Your task to perform on an android device: delete a single message in the gmail app Image 0: 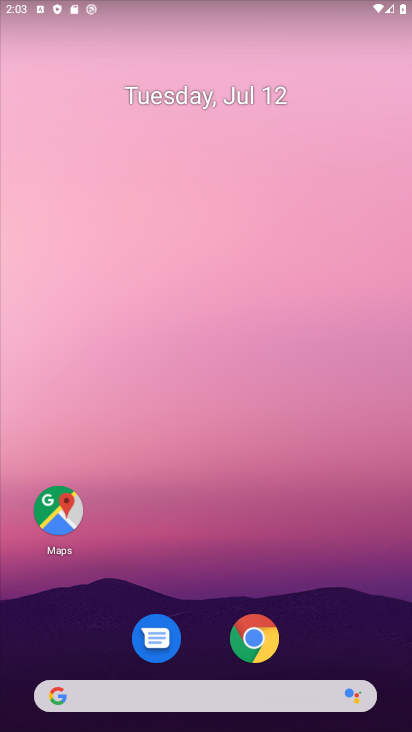
Step 0: drag from (109, 527) to (211, 58)
Your task to perform on an android device: delete a single message in the gmail app Image 1: 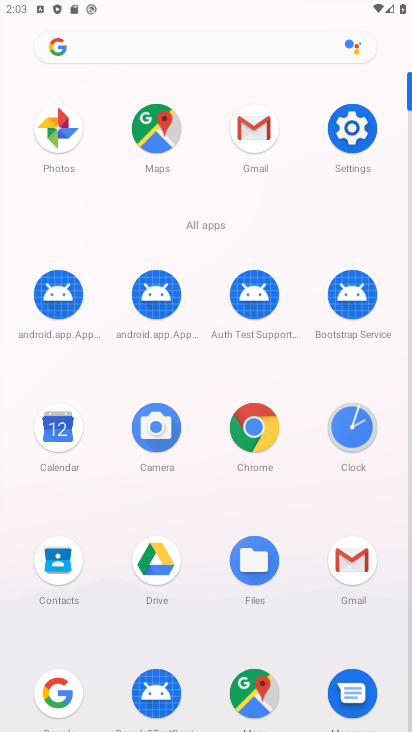
Step 1: click (249, 127)
Your task to perform on an android device: delete a single message in the gmail app Image 2: 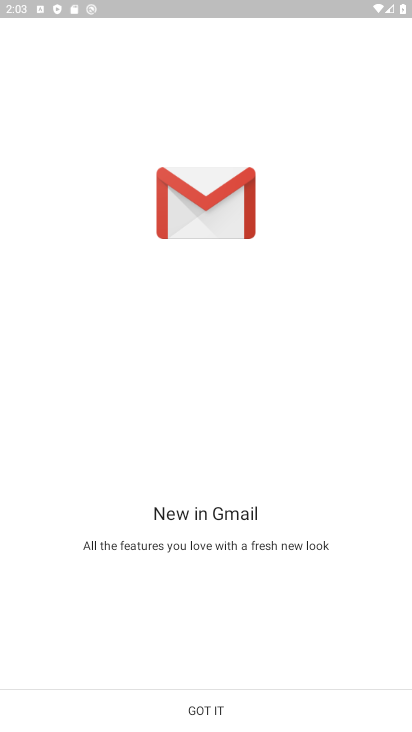
Step 2: click (189, 709)
Your task to perform on an android device: delete a single message in the gmail app Image 3: 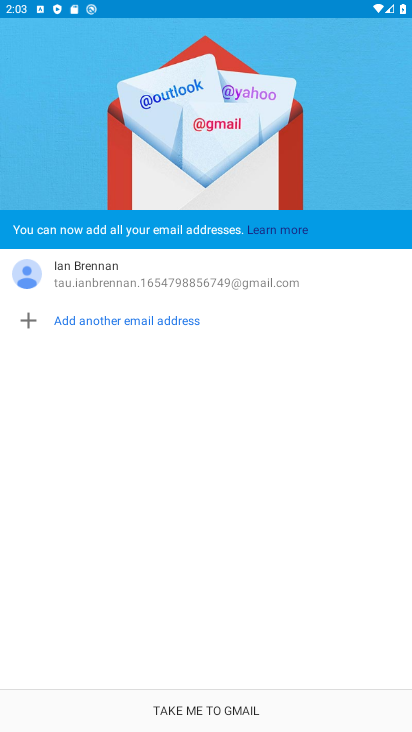
Step 3: click (193, 700)
Your task to perform on an android device: delete a single message in the gmail app Image 4: 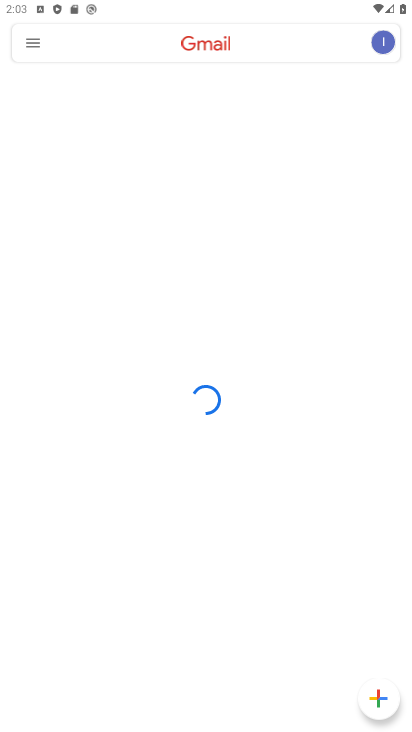
Step 4: click (24, 42)
Your task to perform on an android device: delete a single message in the gmail app Image 5: 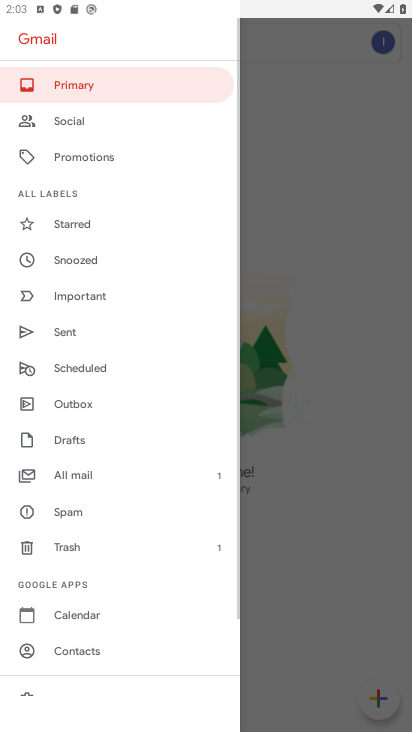
Step 5: click (76, 476)
Your task to perform on an android device: delete a single message in the gmail app Image 6: 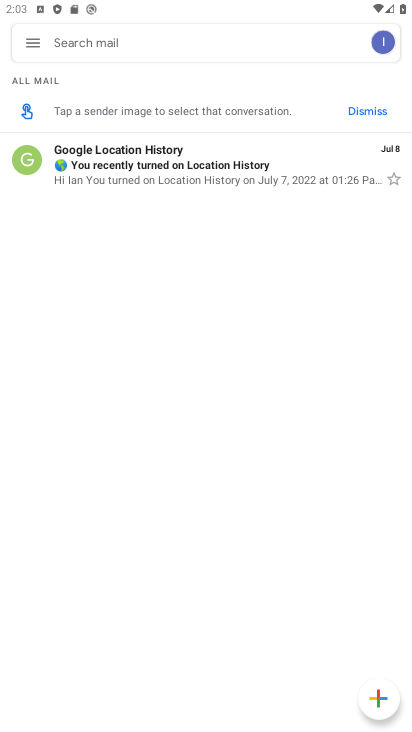
Step 6: click (147, 171)
Your task to perform on an android device: delete a single message in the gmail app Image 7: 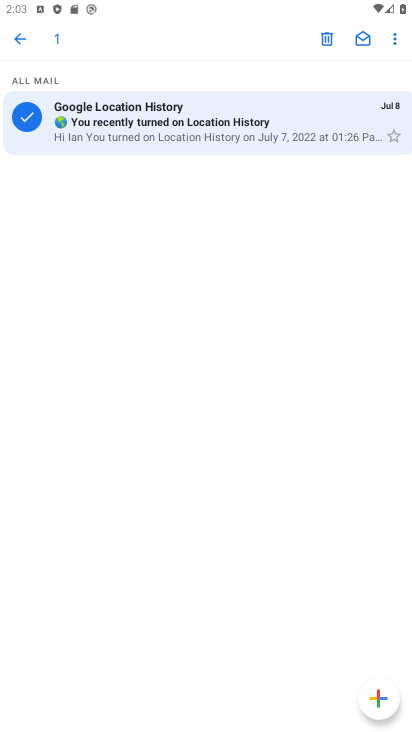
Step 7: click (328, 26)
Your task to perform on an android device: delete a single message in the gmail app Image 8: 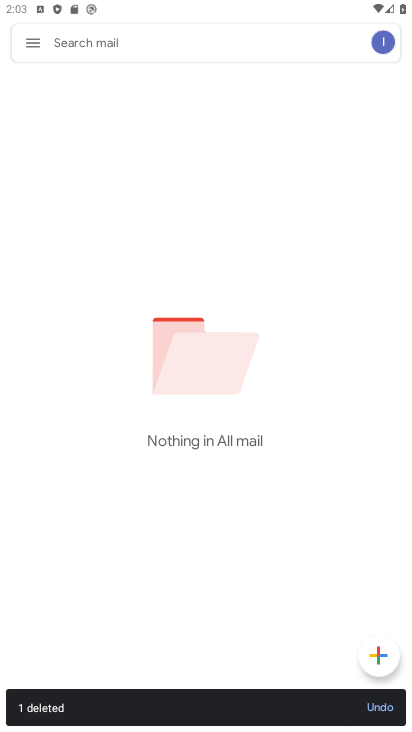
Step 8: task complete